Your task to perform on an android device: change the clock style Image 0: 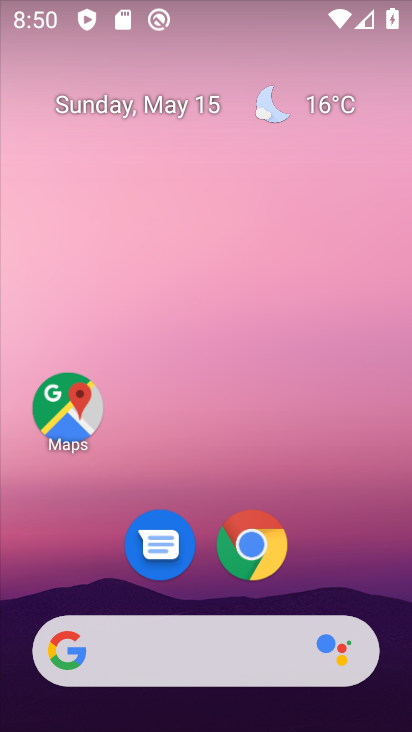
Step 0: drag from (338, 561) to (219, 120)
Your task to perform on an android device: change the clock style Image 1: 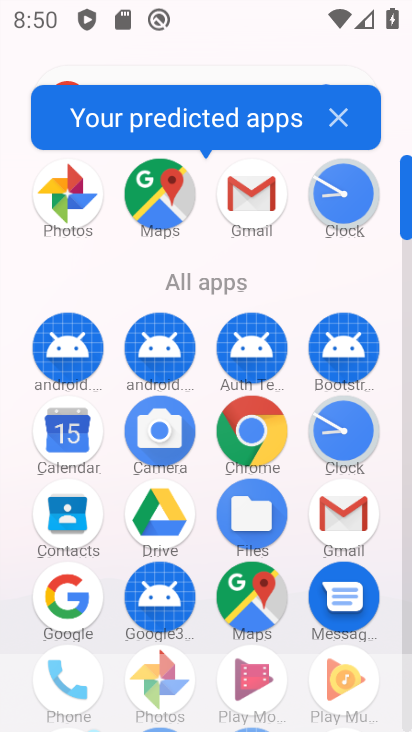
Step 1: click (345, 195)
Your task to perform on an android device: change the clock style Image 2: 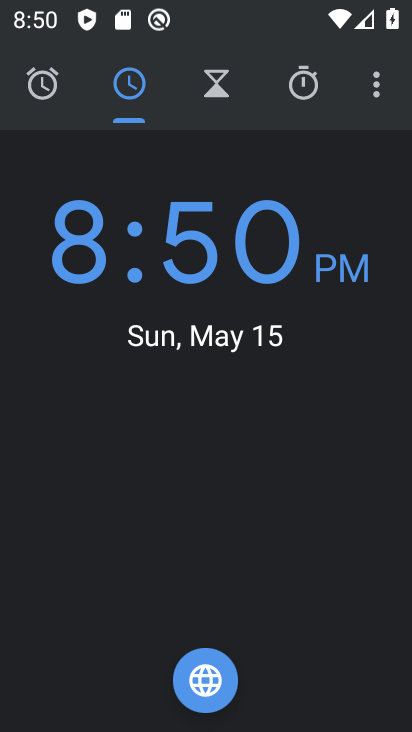
Step 2: click (376, 85)
Your task to perform on an android device: change the clock style Image 3: 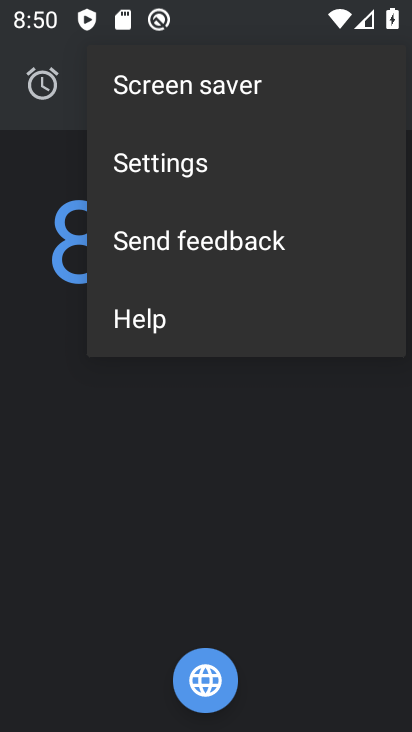
Step 3: click (190, 172)
Your task to perform on an android device: change the clock style Image 4: 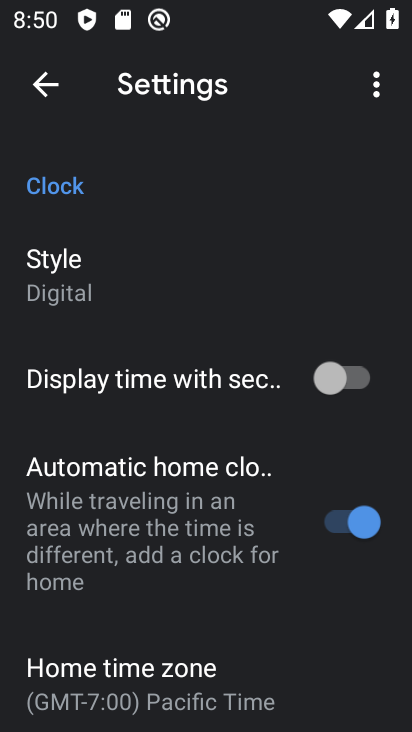
Step 4: click (160, 279)
Your task to perform on an android device: change the clock style Image 5: 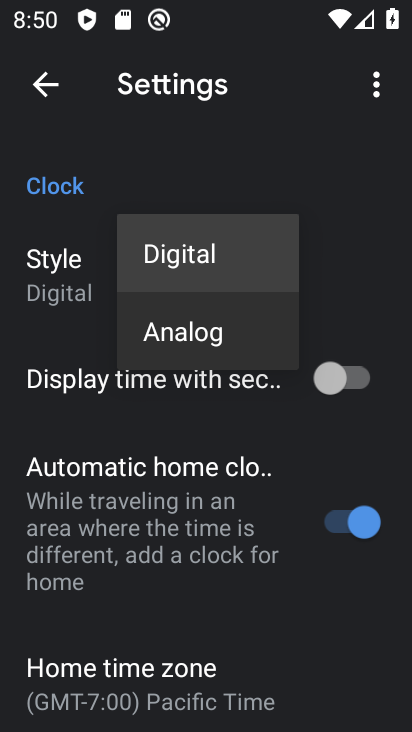
Step 5: click (183, 328)
Your task to perform on an android device: change the clock style Image 6: 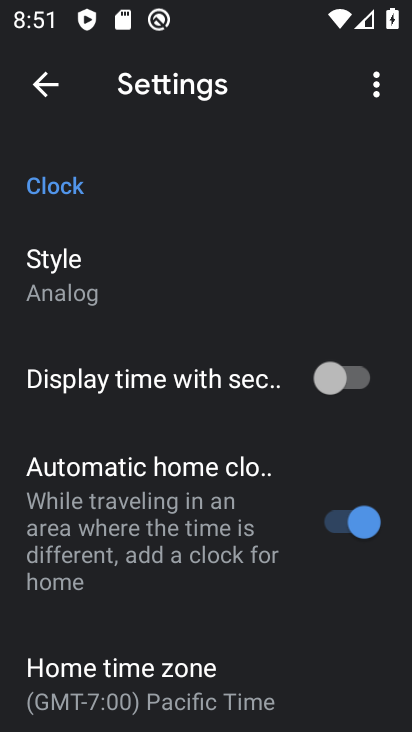
Step 6: task complete